Your task to perform on an android device: Open wifi settings Image 0: 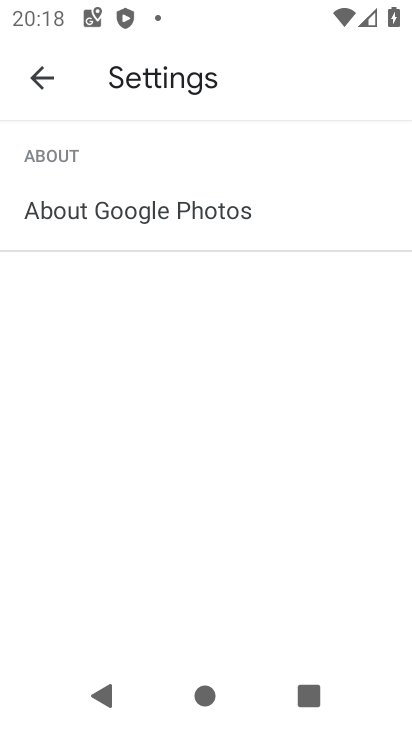
Step 0: press home button
Your task to perform on an android device: Open wifi settings Image 1: 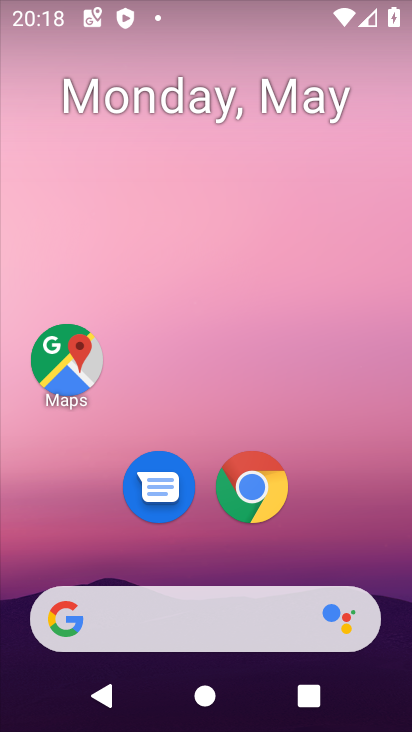
Step 1: drag from (385, 550) to (375, 155)
Your task to perform on an android device: Open wifi settings Image 2: 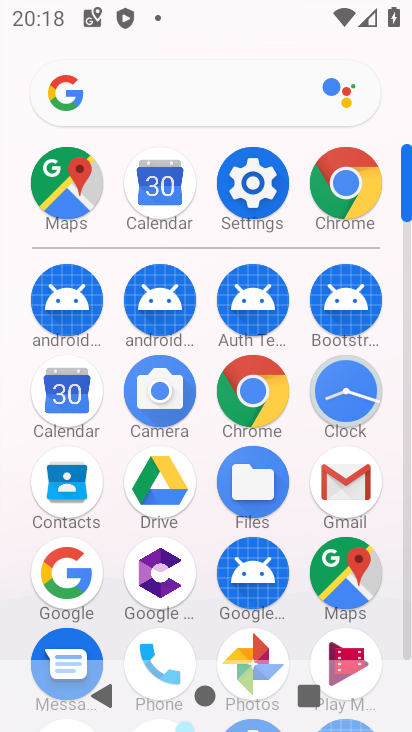
Step 2: click (257, 195)
Your task to perform on an android device: Open wifi settings Image 3: 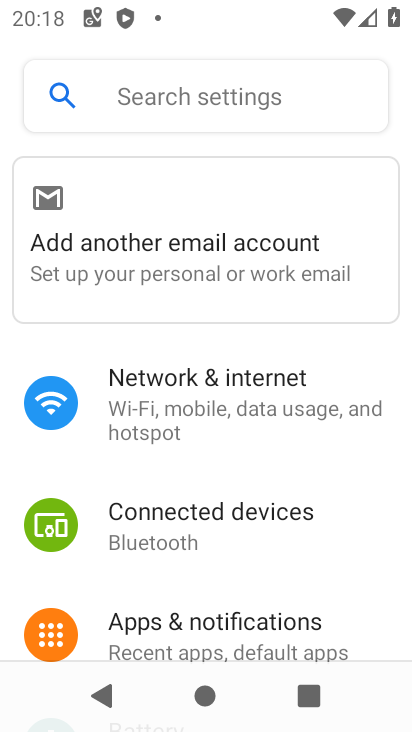
Step 3: drag from (348, 526) to (373, 386)
Your task to perform on an android device: Open wifi settings Image 4: 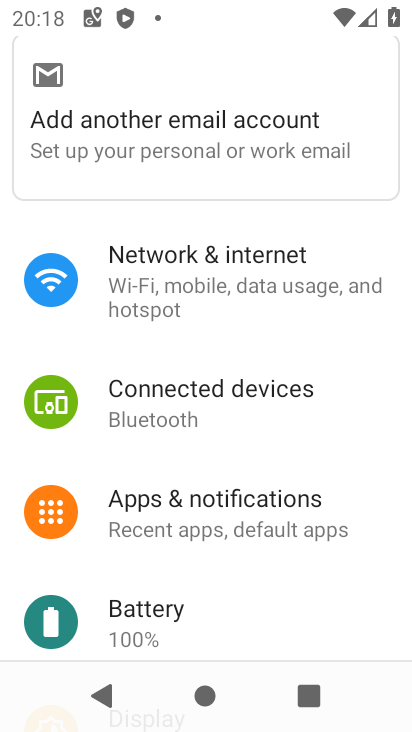
Step 4: drag from (367, 497) to (370, 345)
Your task to perform on an android device: Open wifi settings Image 5: 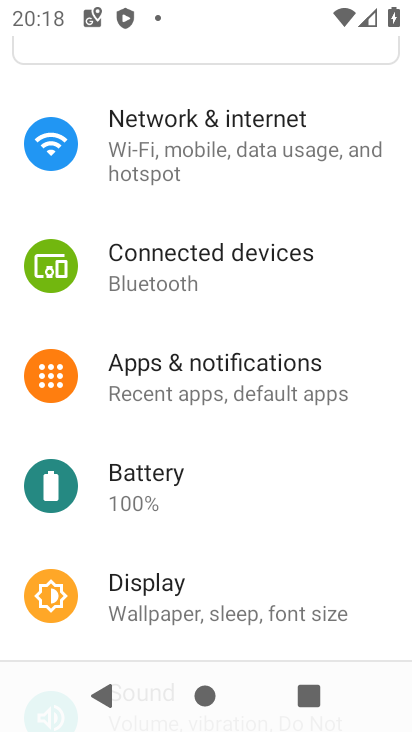
Step 5: drag from (364, 510) to (372, 385)
Your task to perform on an android device: Open wifi settings Image 6: 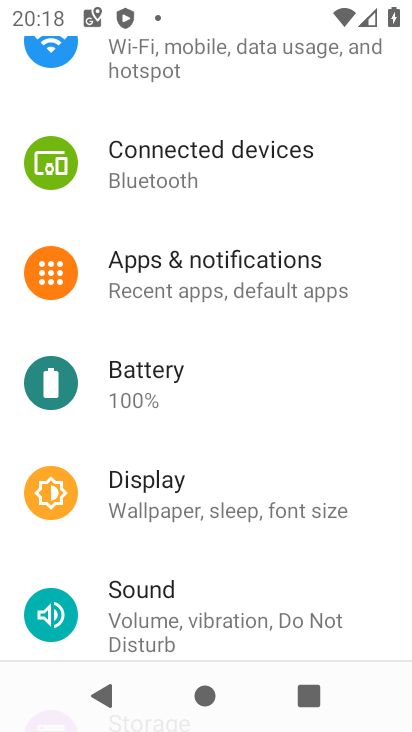
Step 6: drag from (369, 562) to (368, 369)
Your task to perform on an android device: Open wifi settings Image 7: 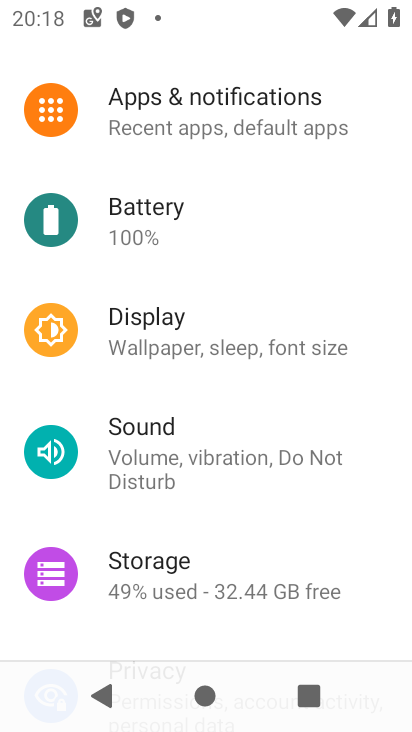
Step 7: drag from (365, 548) to (378, 363)
Your task to perform on an android device: Open wifi settings Image 8: 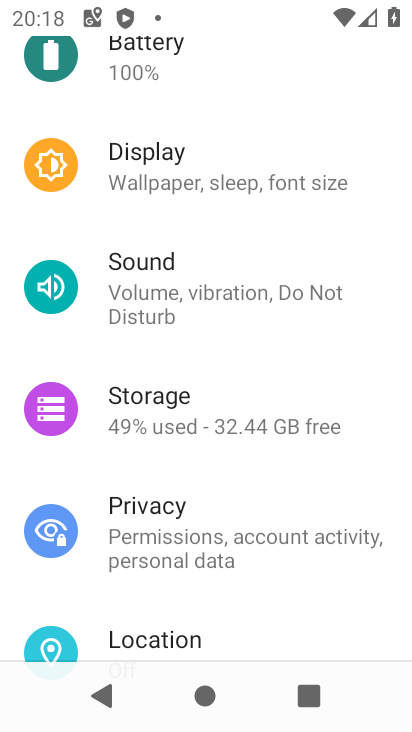
Step 8: drag from (364, 589) to (365, 393)
Your task to perform on an android device: Open wifi settings Image 9: 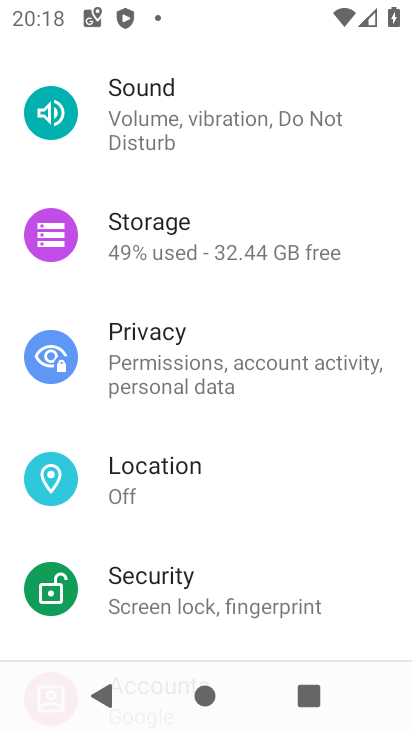
Step 9: drag from (367, 301) to (369, 426)
Your task to perform on an android device: Open wifi settings Image 10: 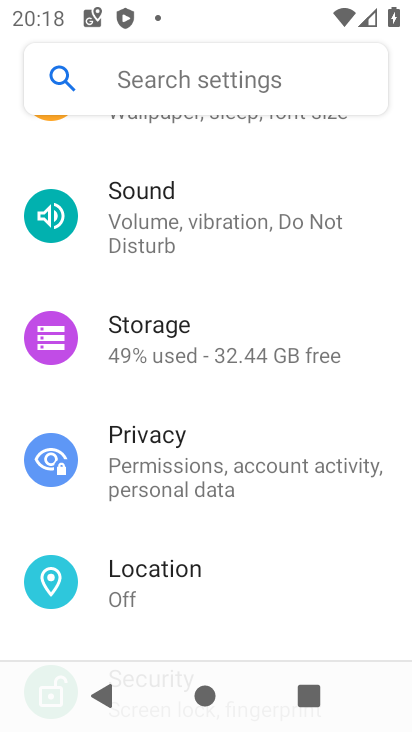
Step 10: drag from (372, 289) to (369, 427)
Your task to perform on an android device: Open wifi settings Image 11: 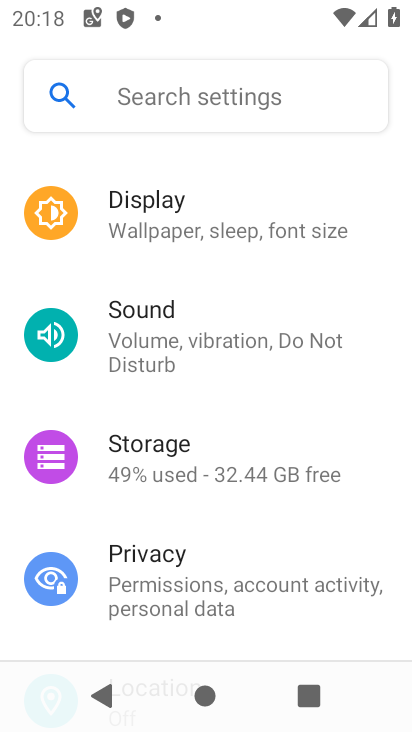
Step 11: drag from (371, 271) to (378, 413)
Your task to perform on an android device: Open wifi settings Image 12: 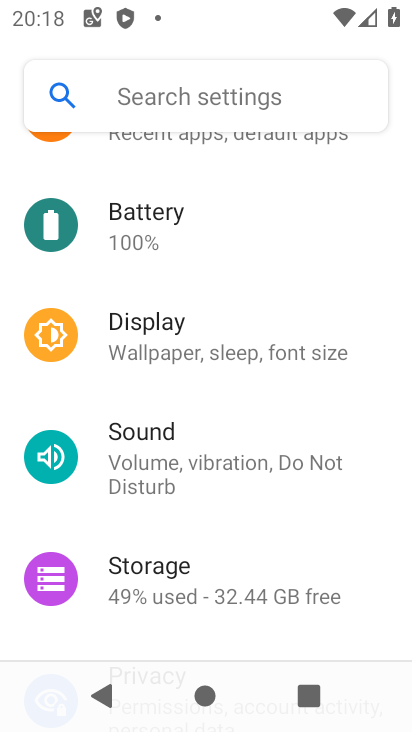
Step 12: drag from (361, 236) to (352, 405)
Your task to perform on an android device: Open wifi settings Image 13: 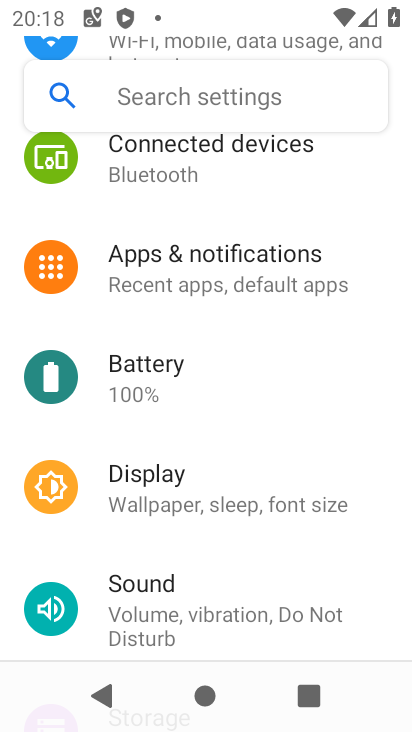
Step 13: drag from (366, 212) to (365, 420)
Your task to perform on an android device: Open wifi settings Image 14: 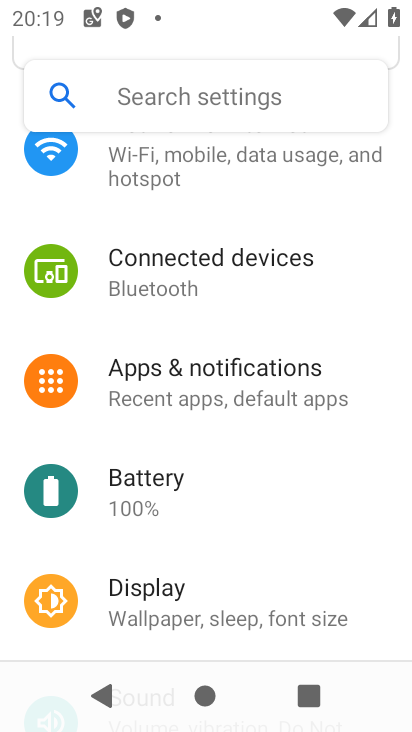
Step 14: drag from (348, 221) to (363, 373)
Your task to perform on an android device: Open wifi settings Image 15: 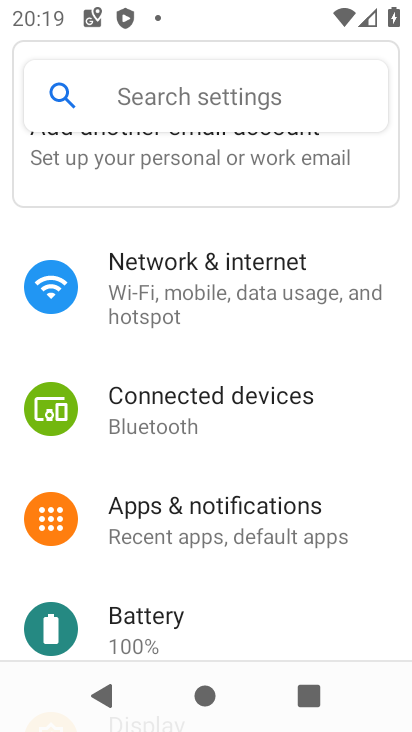
Step 15: drag from (349, 230) to (334, 385)
Your task to perform on an android device: Open wifi settings Image 16: 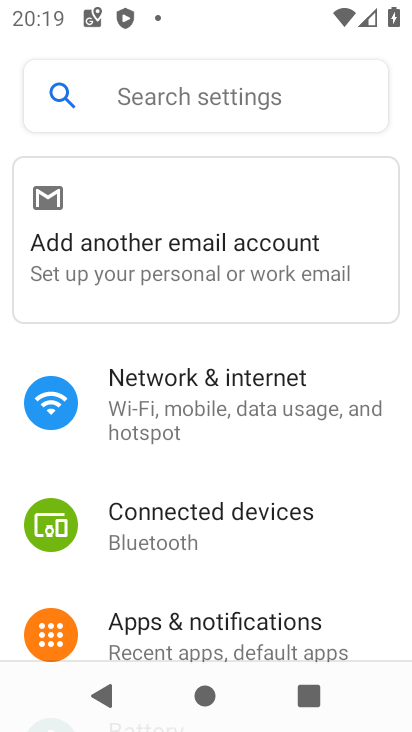
Step 16: click (251, 406)
Your task to perform on an android device: Open wifi settings Image 17: 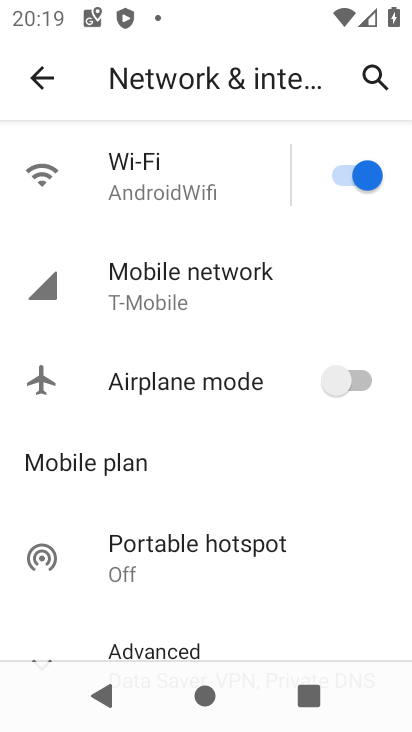
Step 17: click (196, 188)
Your task to perform on an android device: Open wifi settings Image 18: 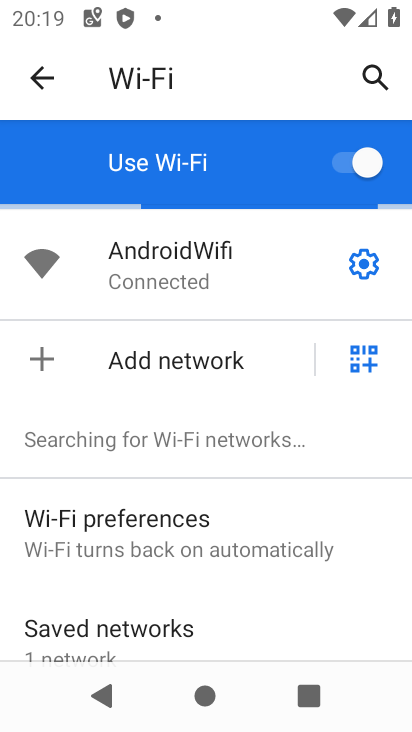
Step 18: task complete